Your task to perform on an android device: turn on priority inbox in the gmail app Image 0: 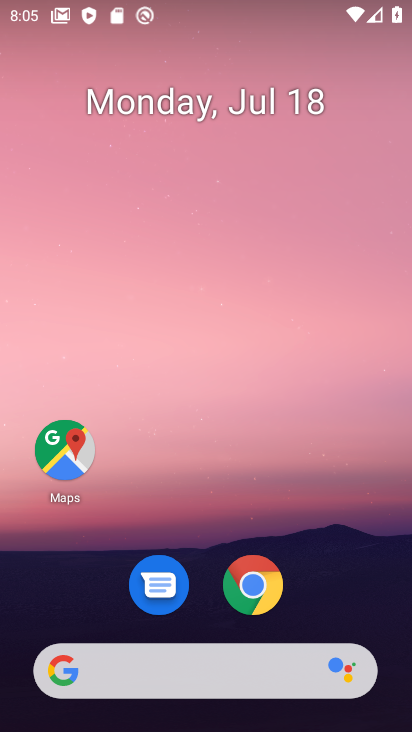
Step 0: drag from (162, 671) to (324, 96)
Your task to perform on an android device: turn on priority inbox in the gmail app Image 1: 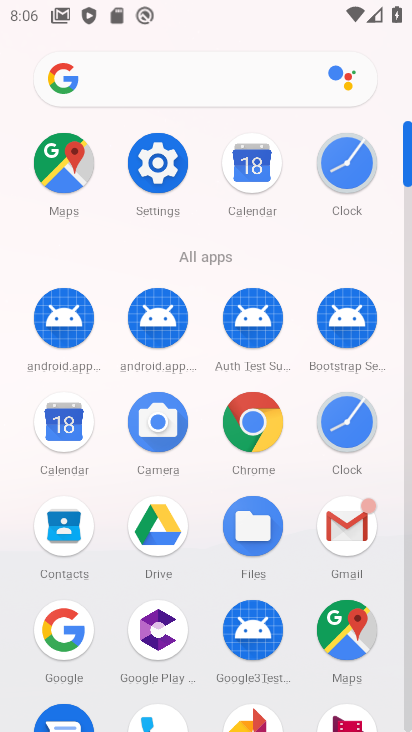
Step 1: click (334, 533)
Your task to perform on an android device: turn on priority inbox in the gmail app Image 2: 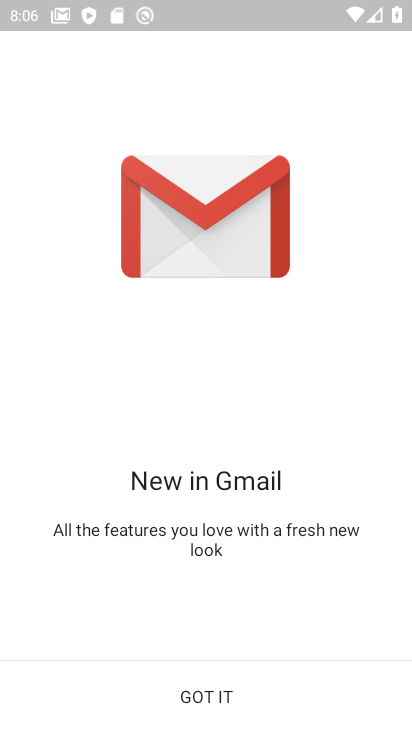
Step 2: click (207, 684)
Your task to perform on an android device: turn on priority inbox in the gmail app Image 3: 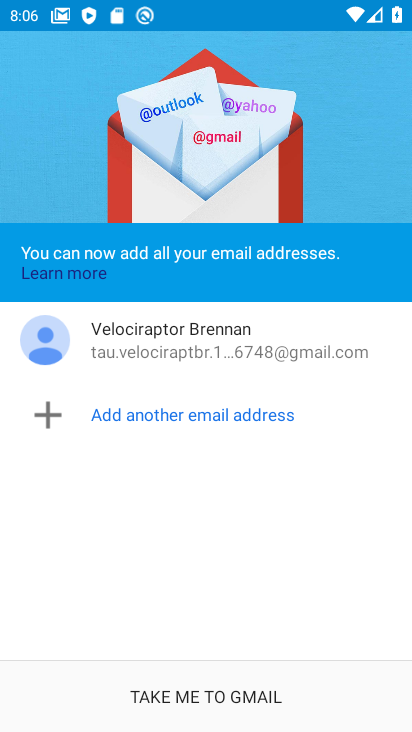
Step 3: click (207, 684)
Your task to perform on an android device: turn on priority inbox in the gmail app Image 4: 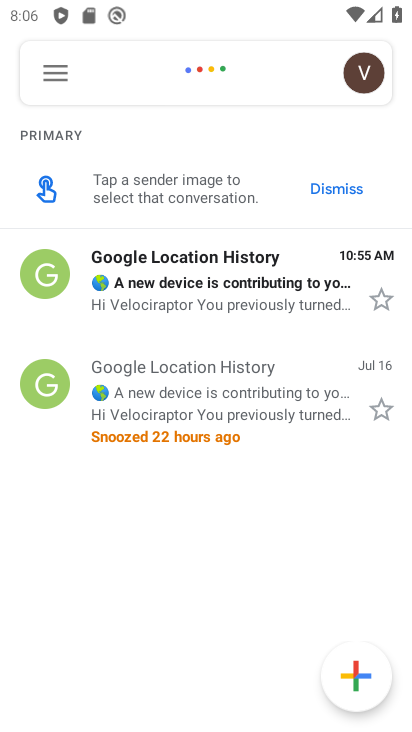
Step 4: click (54, 72)
Your task to perform on an android device: turn on priority inbox in the gmail app Image 5: 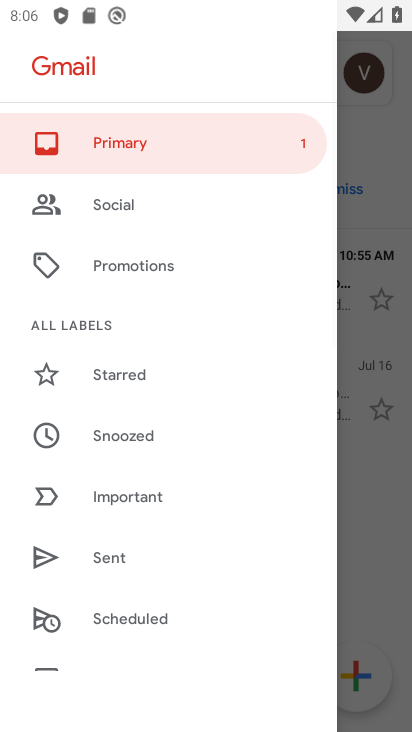
Step 5: drag from (196, 610) to (247, 217)
Your task to perform on an android device: turn on priority inbox in the gmail app Image 6: 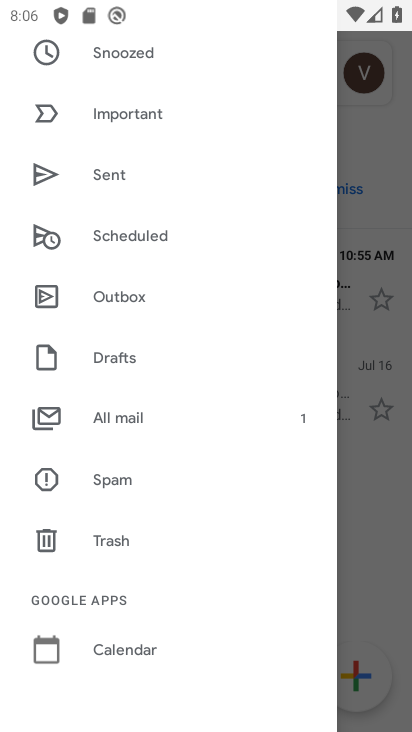
Step 6: drag from (239, 509) to (262, 230)
Your task to perform on an android device: turn on priority inbox in the gmail app Image 7: 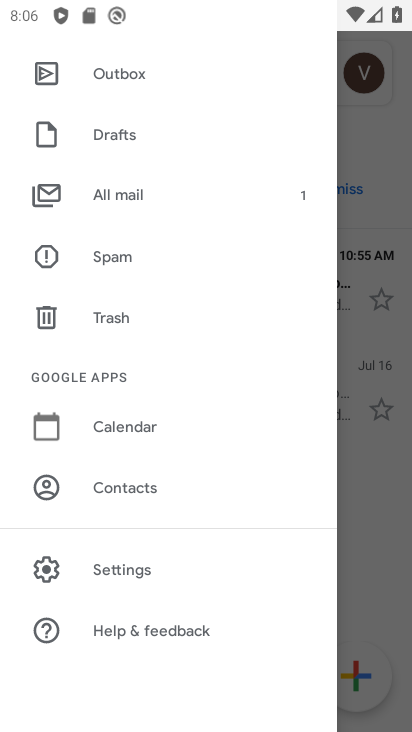
Step 7: click (145, 571)
Your task to perform on an android device: turn on priority inbox in the gmail app Image 8: 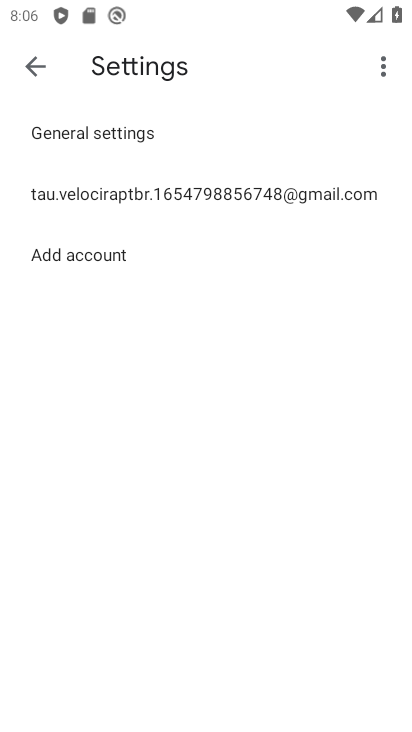
Step 8: click (310, 194)
Your task to perform on an android device: turn on priority inbox in the gmail app Image 9: 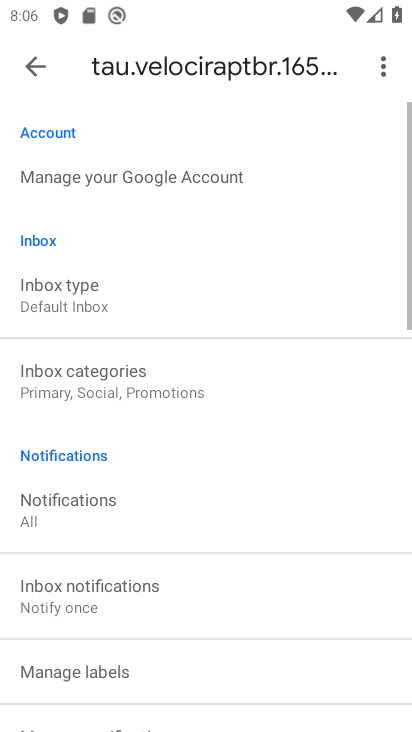
Step 9: click (67, 297)
Your task to perform on an android device: turn on priority inbox in the gmail app Image 10: 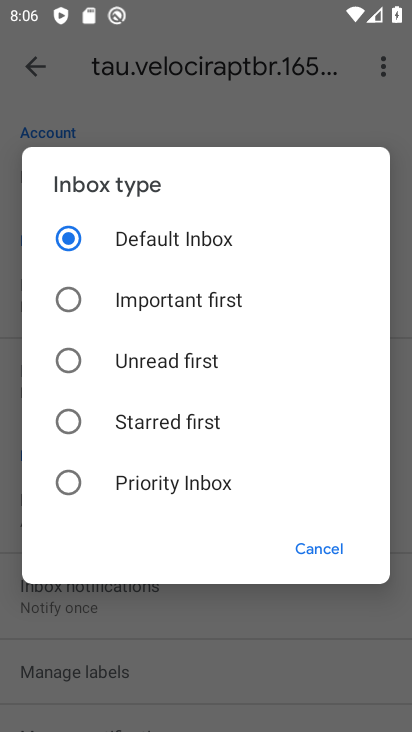
Step 10: click (65, 488)
Your task to perform on an android device: turn on priority inbox in the gmail app Image 11: 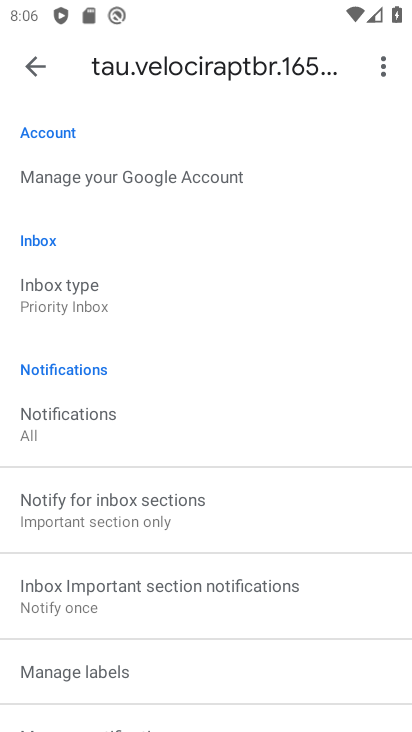
Step 11: task complete